Your task to perform on an android device: Open the Play Movies app and select the watchlist tab. Image 0: 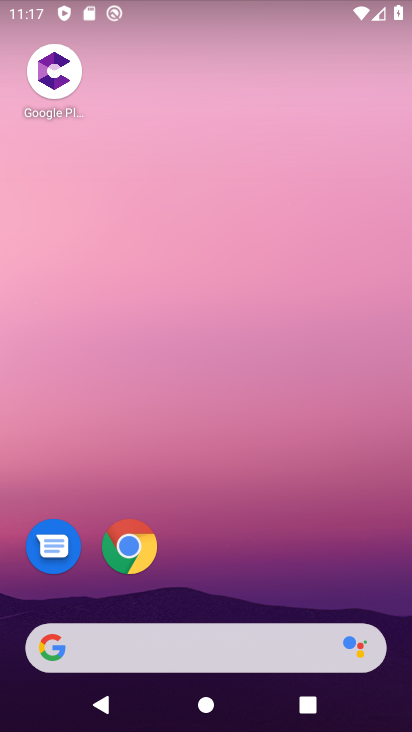
Step 0: drag from (254, 574) to (255, 94)
Your task to perform on an android device: Open the Play Movies app and select the watchlist tab. Image 1: 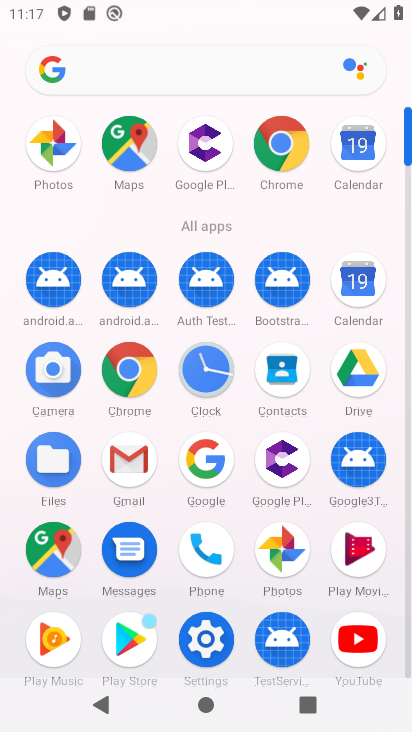
Step 1: drag from (311, 233) to (311, 8)
Your task to perform on an android device: Open the Play Movies app and select the watchlist tab. Image 2: 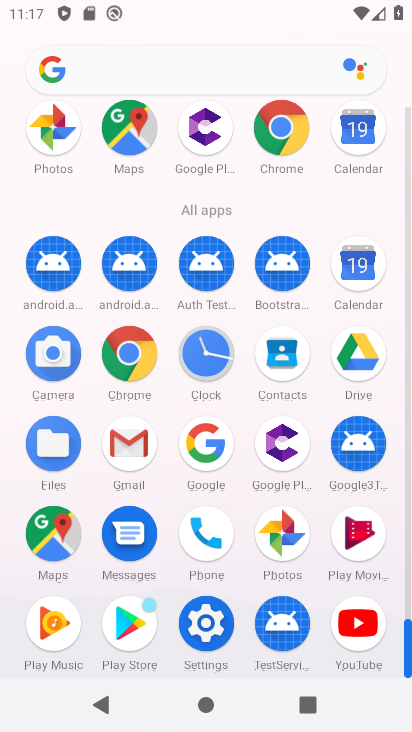
Step 2: click (371, 522)
Your task to perform on an android device: Open the Play Movies app and select the watchlist tab. Image 3: 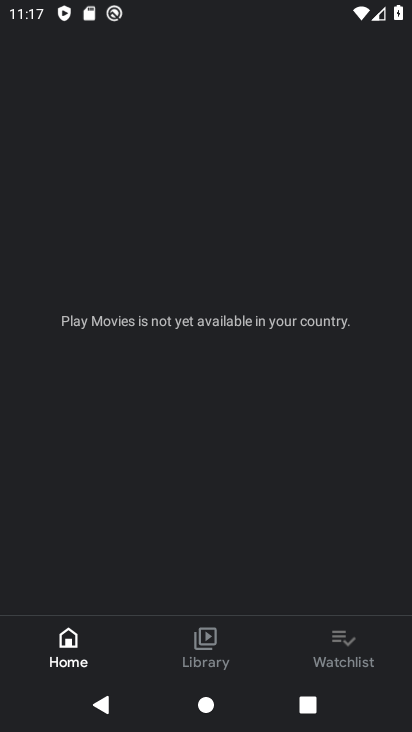
Step 3: click (336, 643)
Your task to perform on an android device: Open the Play Movies app and select the watchlist tab. Image 4: 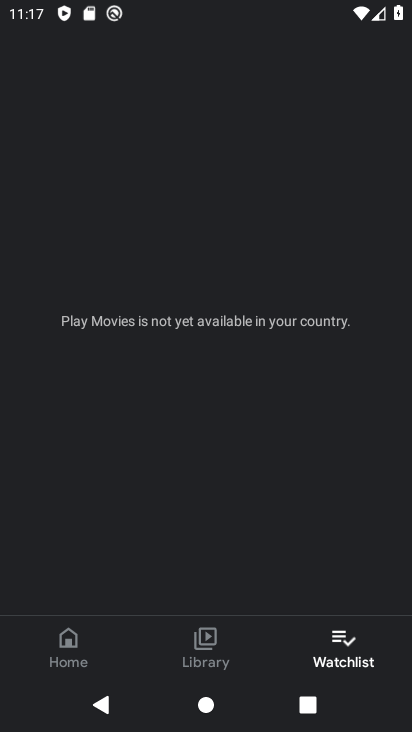
Step 4: task complete